Your task to perform on an android device: Open Google Chrome and click the shortcut for Amazon.com Image 0: 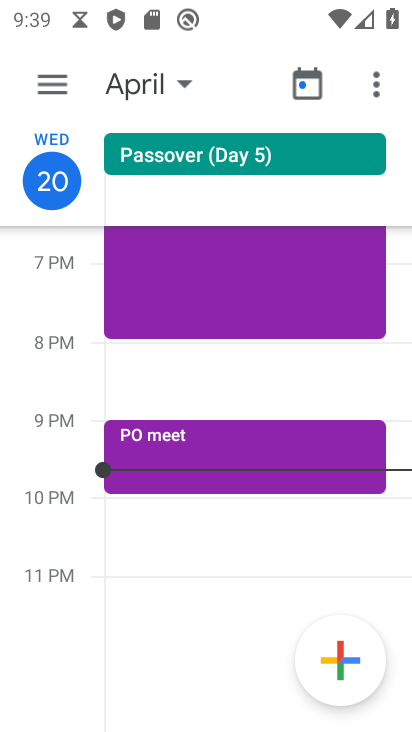
Step 0: press home button
Your task to perform on an android device: Open Google Chrome and click the shortcut for Amazon.com Image 1: 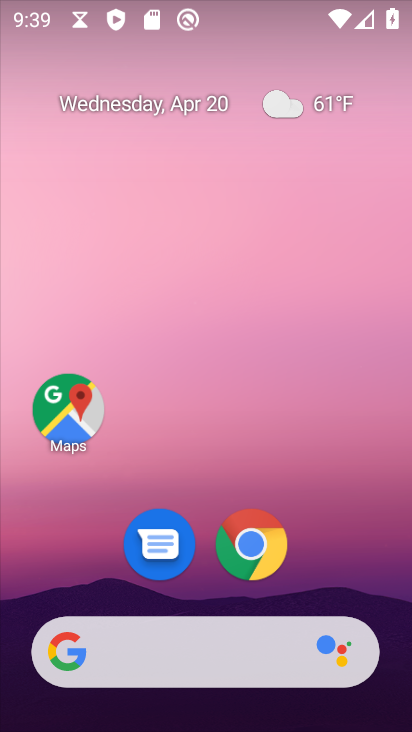
Step 1: drag from (178, 609) to (288, 47)
Your task to perform on an android device: Open Google Chrome and click the shortcut for Amazon.com Image 2: 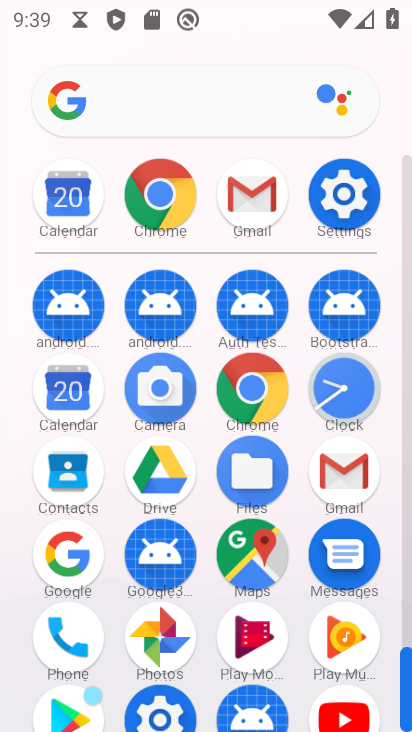
Step 2: click (170, 214)
Your task to perform on an android device: Open Google Chrome and click the shortcut for Amazon.com Image 3: 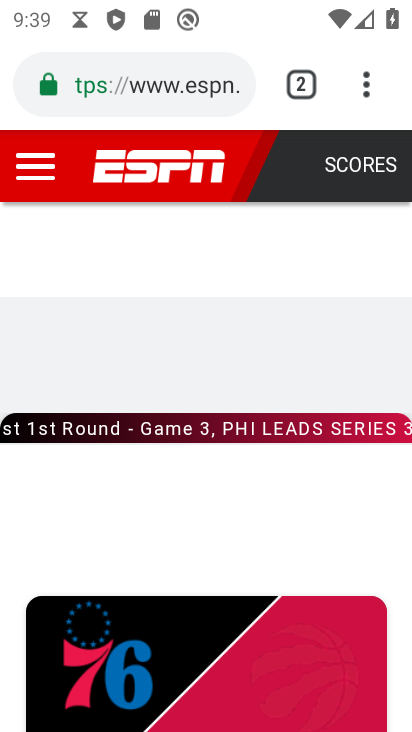
Step 3: click (362, 103)
Your task to perform on an android device: Open Google Chrome and click the shortcut for Amazon.com Image 4: 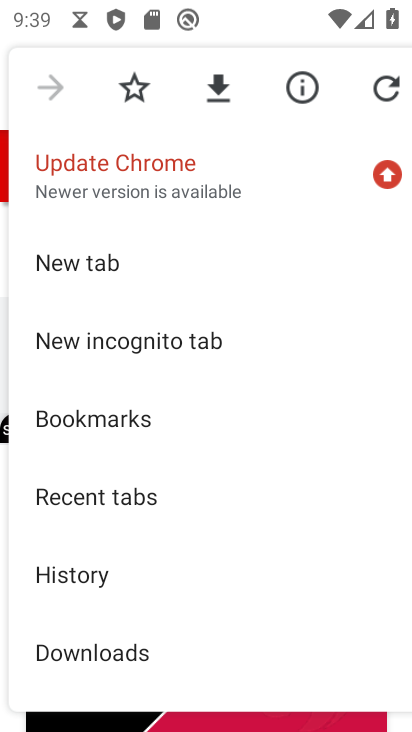
Step 4: click (63, 257)
Your task to perform on an android device: Open Google Chrome and click the shortcut for Amazon.com Image 5: 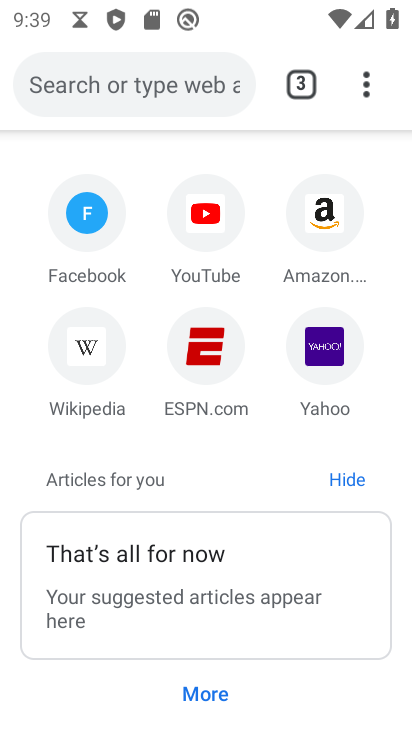
Step 5: click (328, 243)
Your task to perform on an android device: Open Google Chrome and click the shortcut for Amazon.com Image 6: 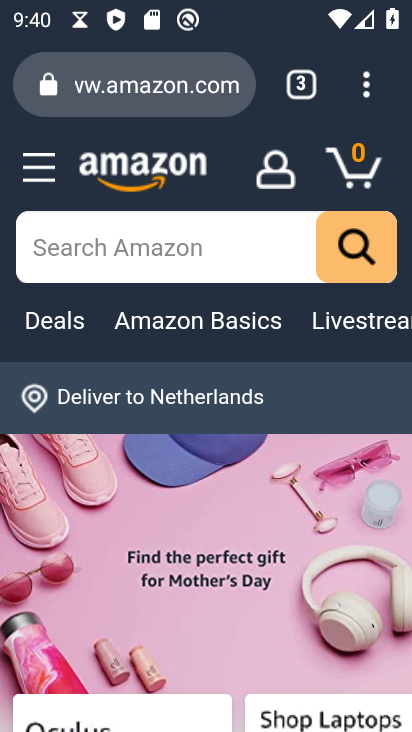
Step 6: task complete